Your task to perform on an android device: open app "PlayWell" Image 0: 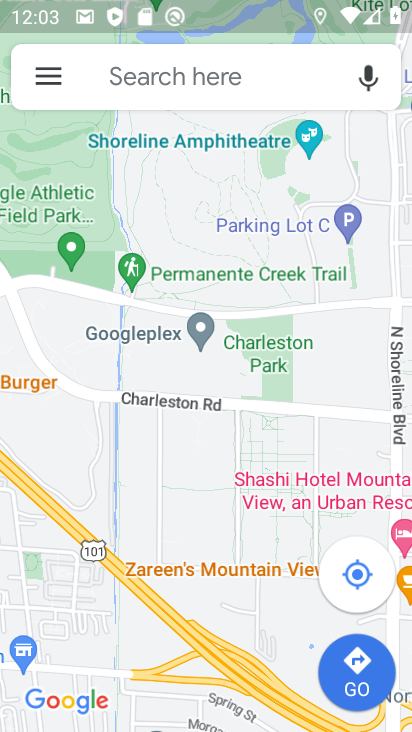
Step 0: press home button
Your task to perform on an android device: open app "PlayWell" Image 1: 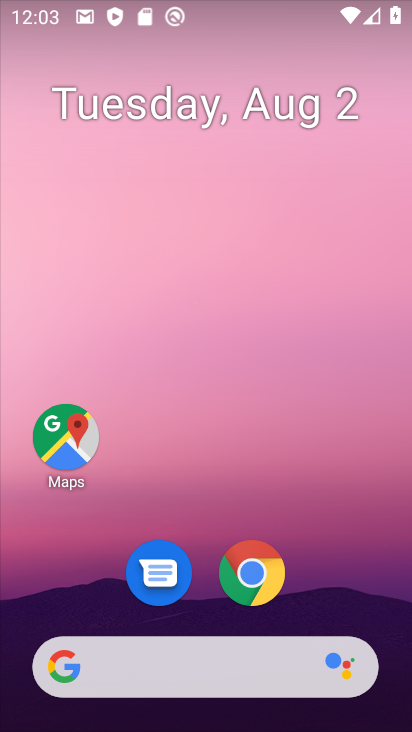
Step 1: drag from (197, 640) to (117, 101)
Your task to perform on an android device: open app "PlayWell" Image 2: 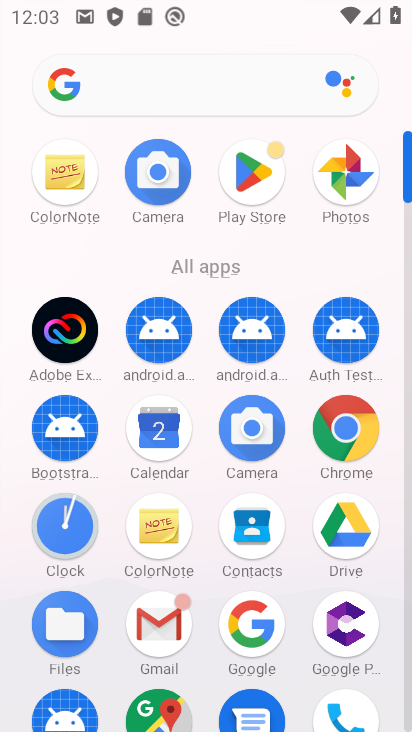
Step 2: click (261, 165)
Your task to perform on an android device: open app "PlayWell" Image 3: 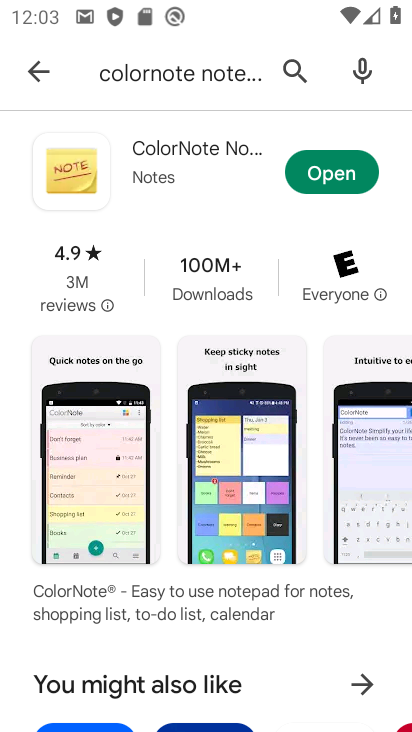
Step 3: click (287, 64)
Your task to perform on an android device: open app "PlayWell" Image 4: 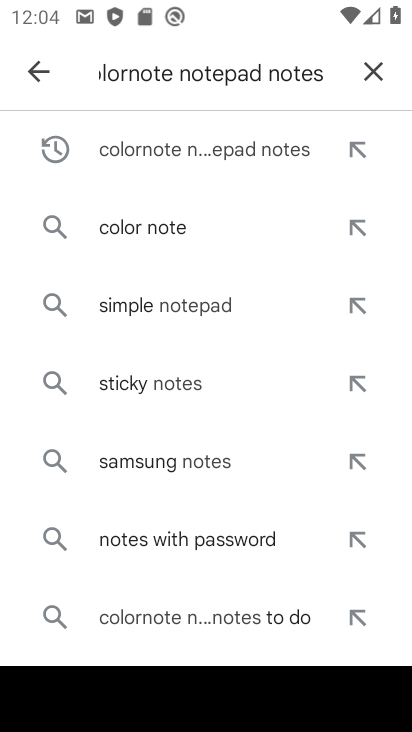
Step 4: click (374, 67)
Your task to perform on an android device: open app "PlayWell" Image 5: 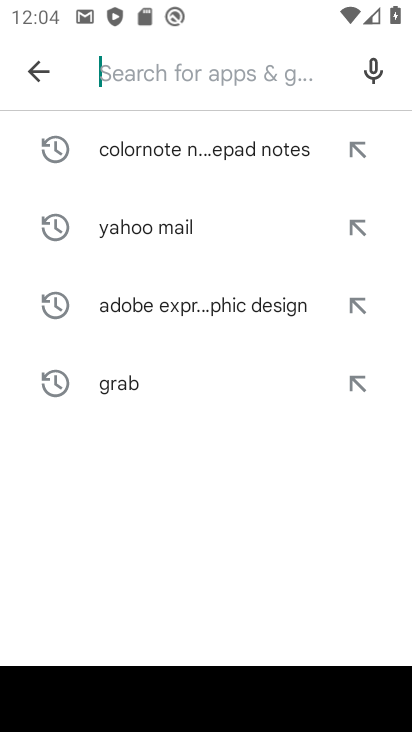
Step 5: type "playwell"
Your task to perform on an android device: open app "PlayWell" Image 6: 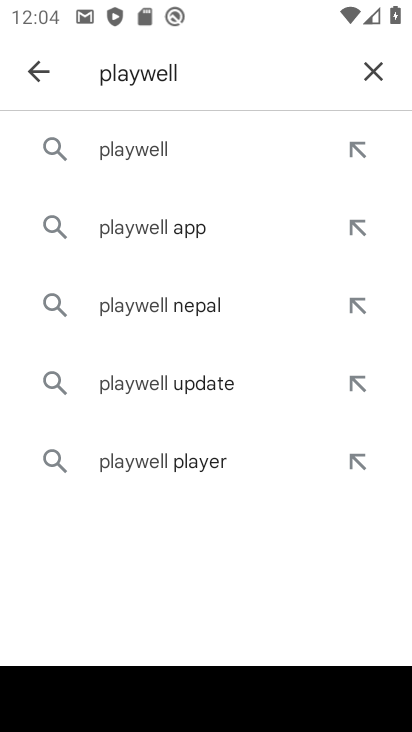
Step 6: click (135, 145)
Your task to perform on an android device: open app "PlayWell" Image 7: 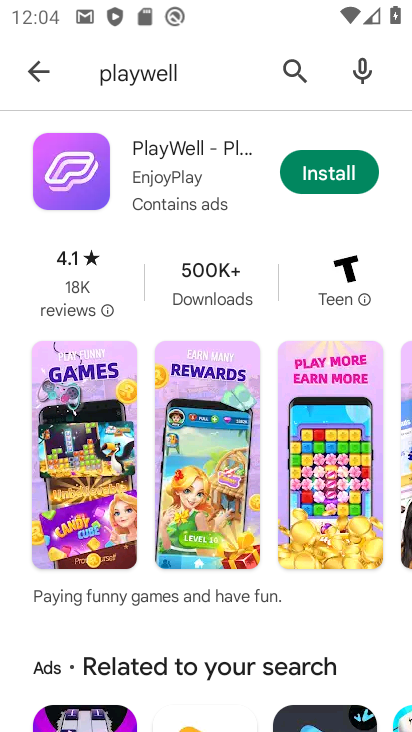
Step 7: task complete